Your task to perform on an android device: What is the recent news? Image 0: 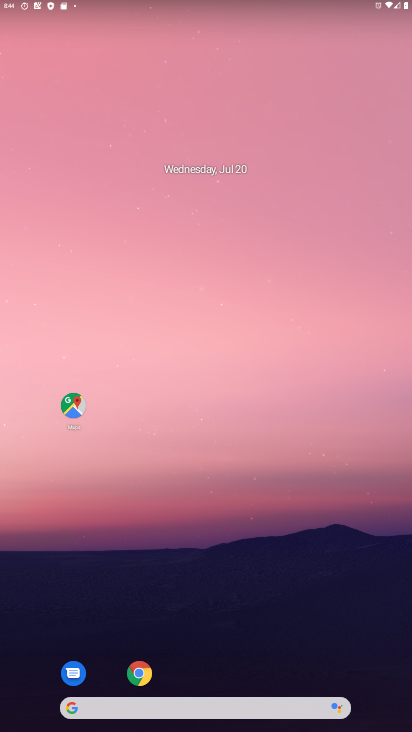
Step 0: drag from (204, 685) to (226, 120)
Your task to perform on an android device: What is the recent news? Image 1: 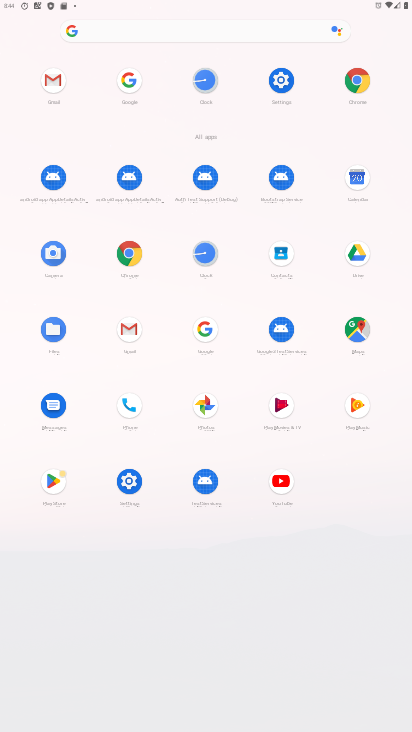
Step 1: click (207, 333)
Your task to perform on an android device: What is the recent news? Image 2: 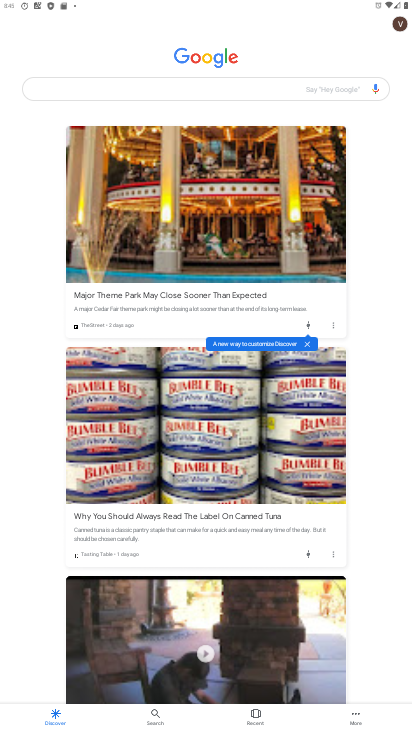
Step 2: click (228, 93)
Your task to perform on an android device: What is the recent news? Image 3: 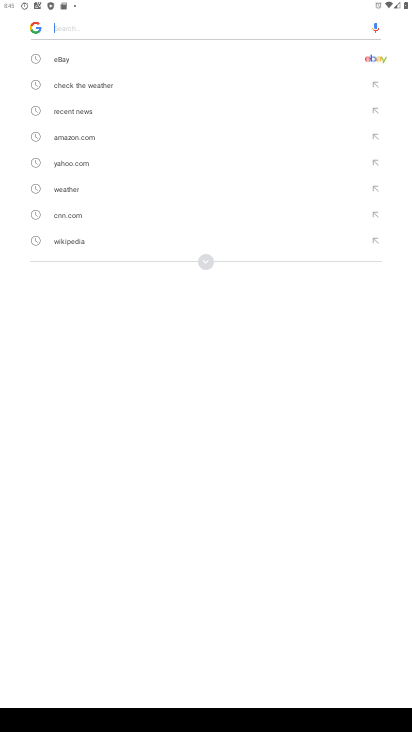
Step 3: click (70, 108)
Your task to perform on an android device: What is the recent news? Image 4: 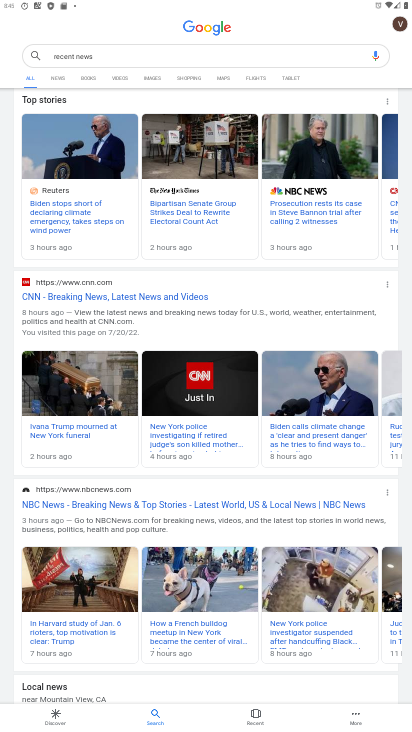
Step 4: task complete